Your task to perform on an android device: turn off notifications in google photos Image 0: 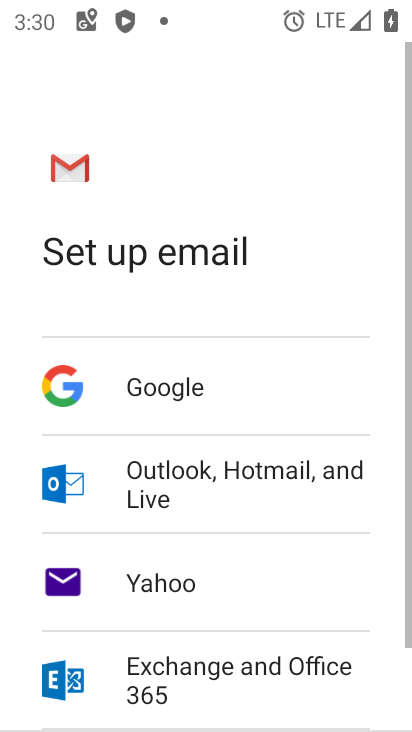
Step 0: press back button
Your task to perform on an android device: turn off notifications in google photos Image 1: 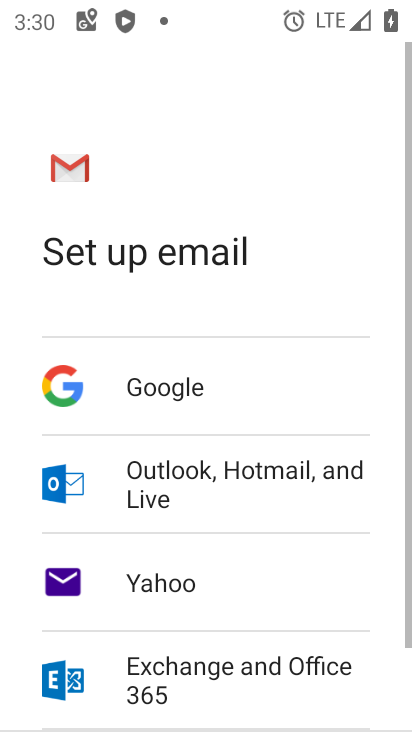
Step 1: press back button
Your task to perform on an android device: turn off notifications in google photos Image 2: 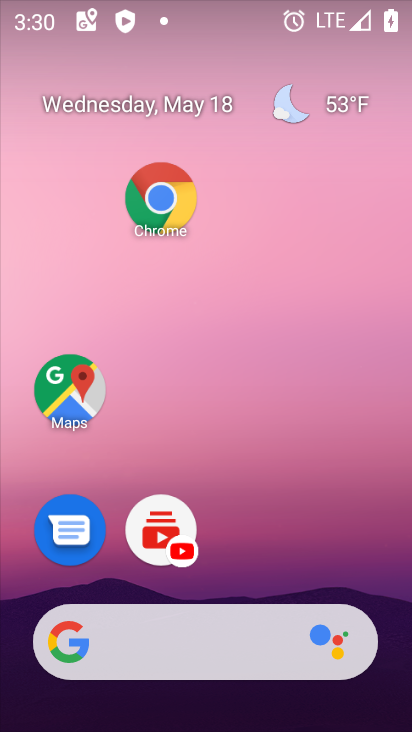
Step 2: drag from (118, 282) to (65, 31)
Your task to perform on an android device: turn off notifications in google photos Image 3: 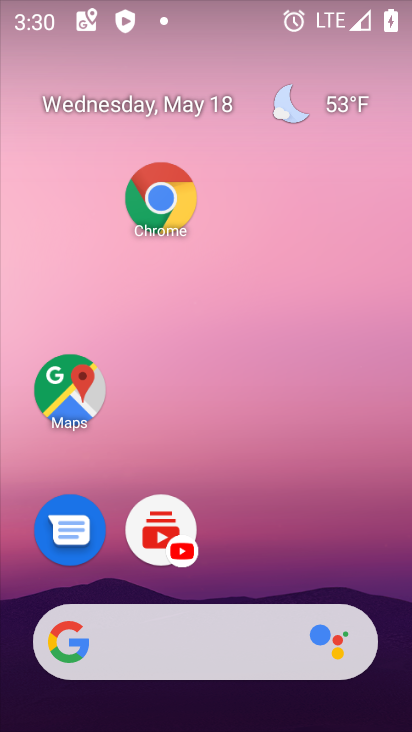
Step 3: drag from (279, 563) to (178, 2)
Your task to perform on an android device: turn off notifications in google photos Image 4: 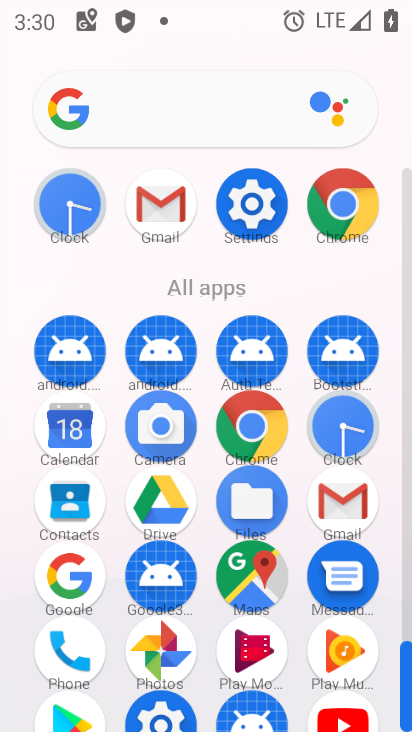
Step 4: click (171, 653)
Your task to perform on an android device: turn off notifications in google photos Image 5: 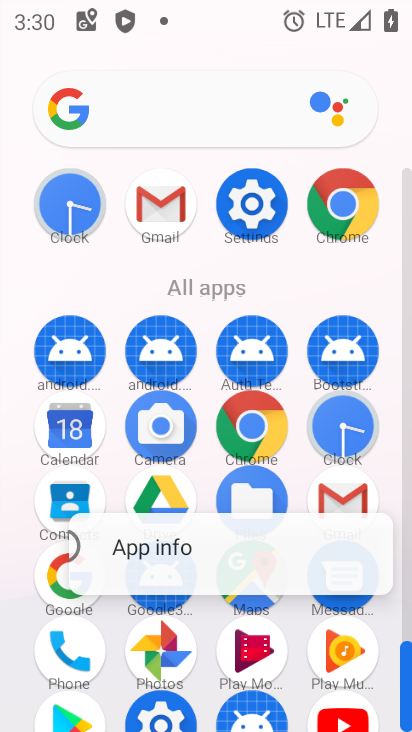
Step 5: click (171, 653)
Your task to perform on an android device: turn off notifications in google photos Image 6: 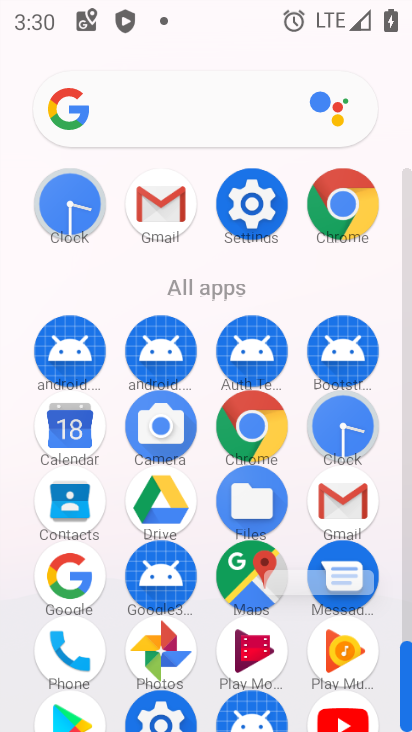
Step 6: click (170, 642)
Your task to perform on an android device: turn off notifications in google photos Image 7: 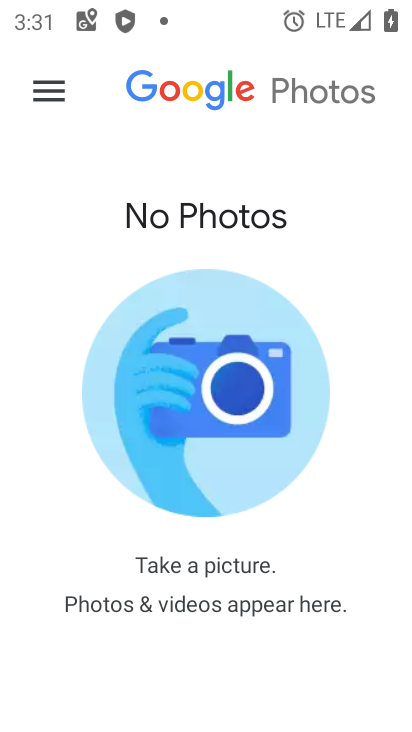
Step 7: press back button
Your task to perform on an android device: turn off notifications in google photos Image 8: 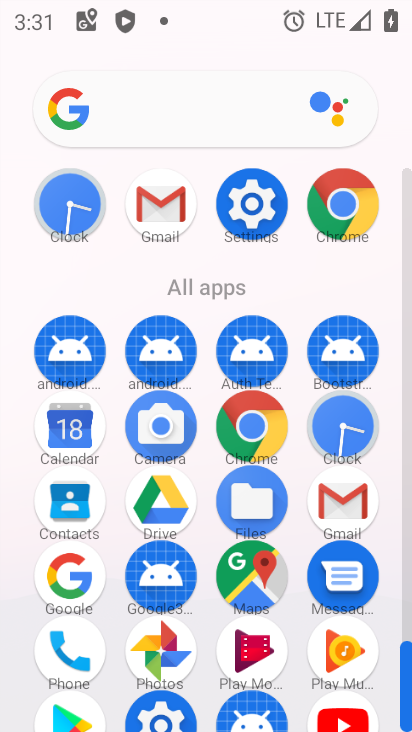
Step 8: click (165, 656)
Your task to perform on an android device: turn off notifications in google photos Image 9: 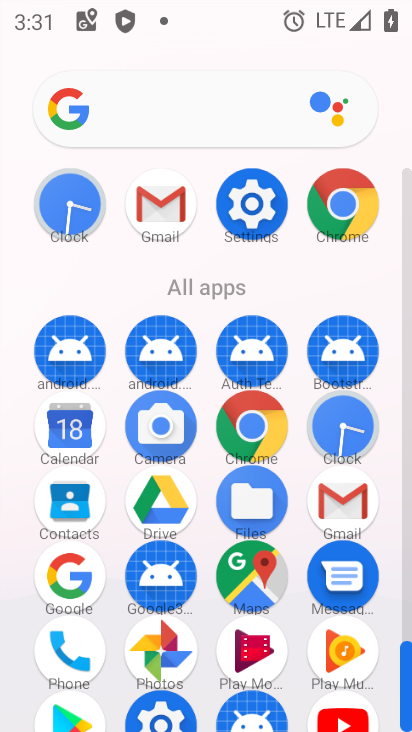
Step 9: click (167, 654)
Your task to perform on an android device: turn off notifications in google photos Image 10: 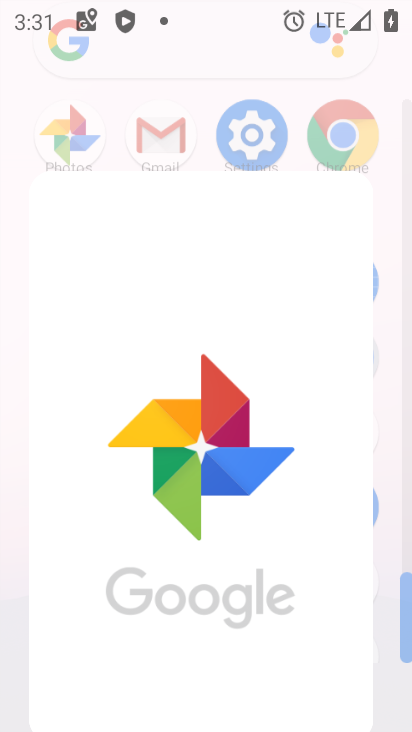
Step 10: click (168, 654)
Your task to perform on an android device: turn off notifications in google photos Image 11: 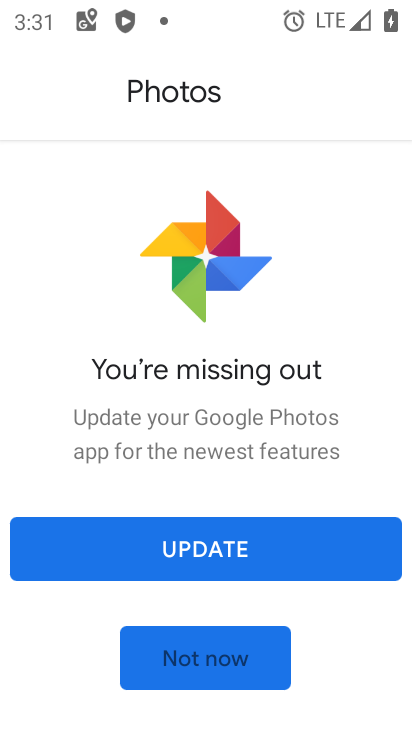
Step 11: click (197, 671)
Your task to perform on an android device: turn off notifications in google photos Image 12: 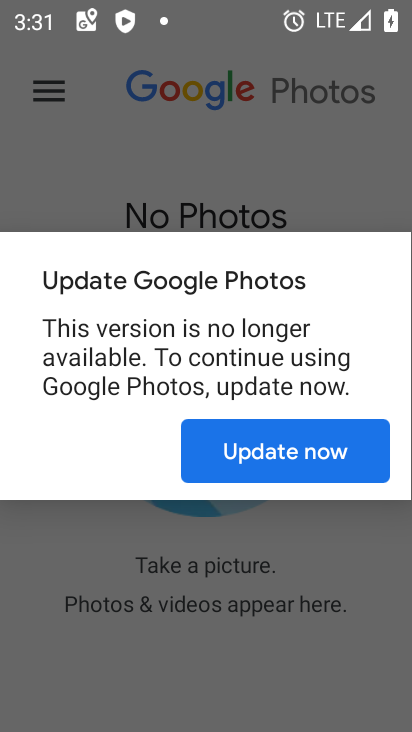
Step 12: click (314, 454)
Your task to perform on an android device: turn off notifications in google photos Image 13: 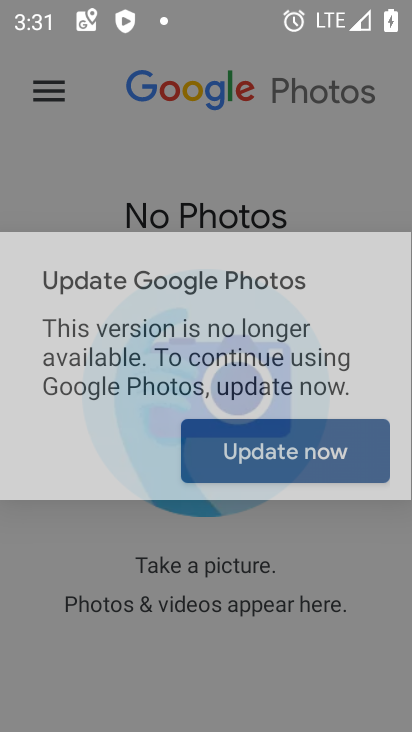
Step 13: click (314, 454)
Your task to perform on an android device: turn off notifications in google photos Image 14: 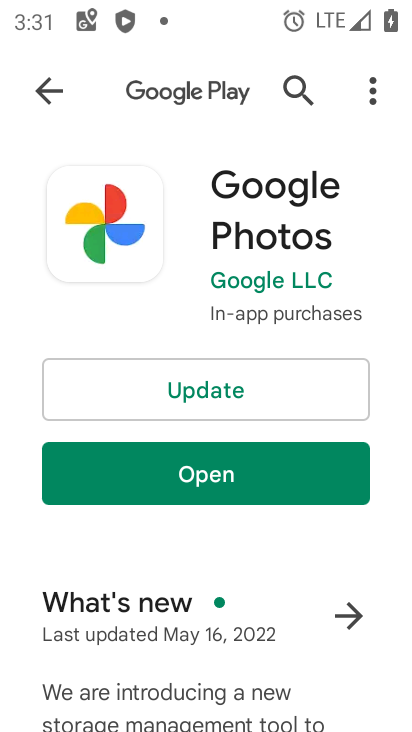
Step 14: click (215, 379)
Your task to perform on an android device: turn off notifications in google photos Image 15: 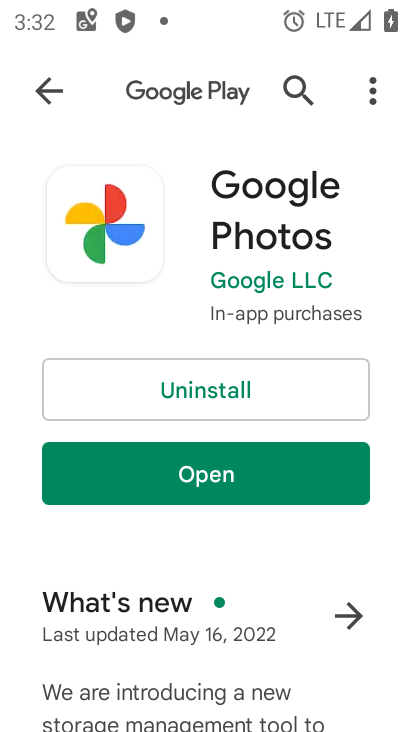
Step 15: click (201, 469)
Your task to perform on an android device: turn off notifications in google photos Image 16: 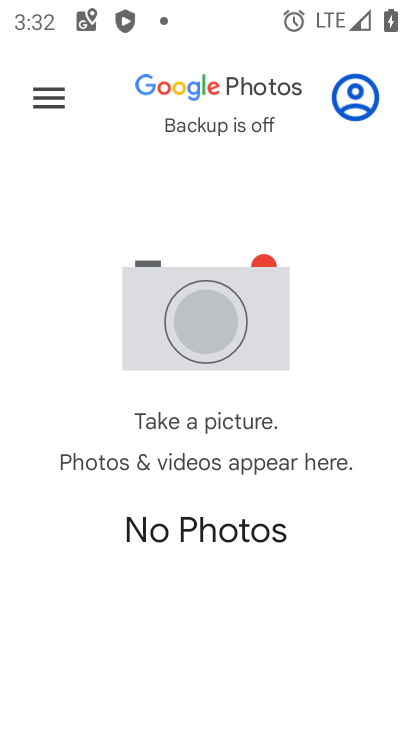
Step 16: click (41, 91)
Your task to perform on an android device: turn off notifications in google photos Image 17: 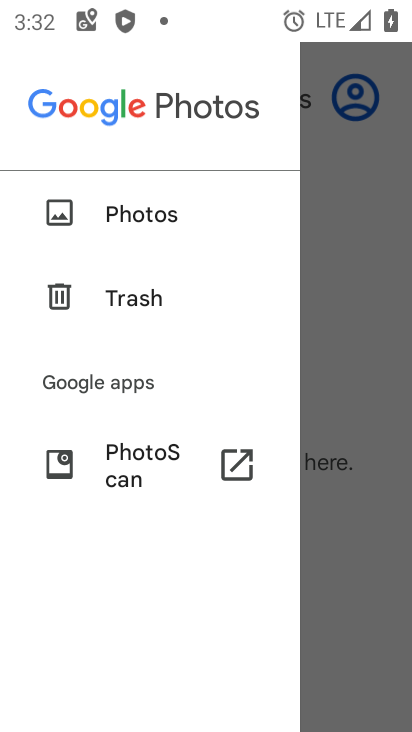
Step 17: click (296, 278)
Your task to perform on an android device: turn off notifications in google photos Image 18: 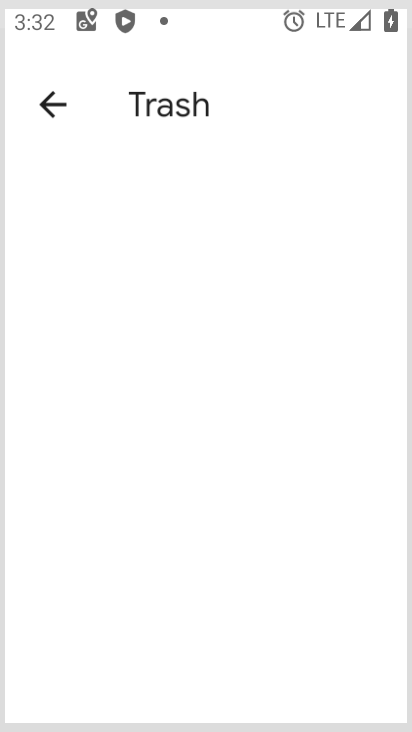
Step 18: click (343, 264)
Your task to perform on an android device: turn off notifications in google photos Image 19: 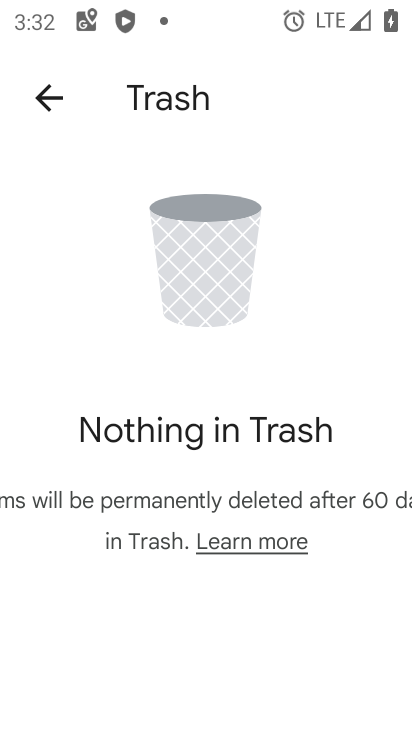
Step 19: click (37, 97)
Your task to perform on an android device: turn off notifications in google photos Image 20: 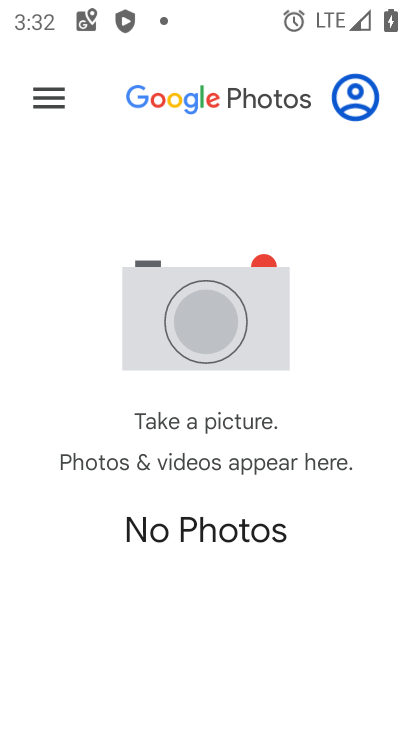
Step 20: click (54, 105)
Your task to perform on an android device: turn off notifications in google photos Image 21: 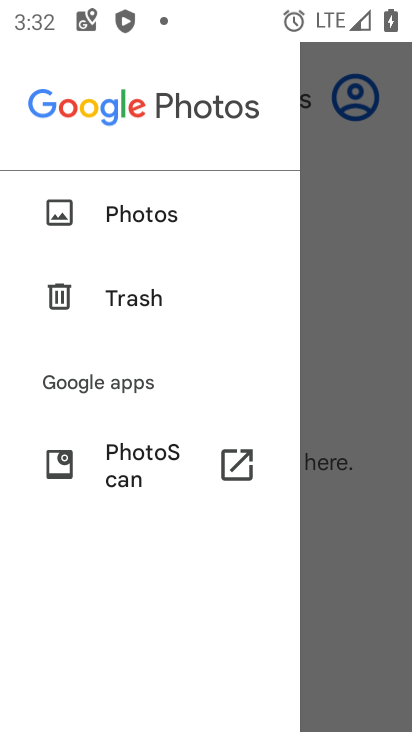
Step 21: drag from (151, 241) to (151, 579)
Your task to perform on an android device: turn off notifications in google photos Image 22: 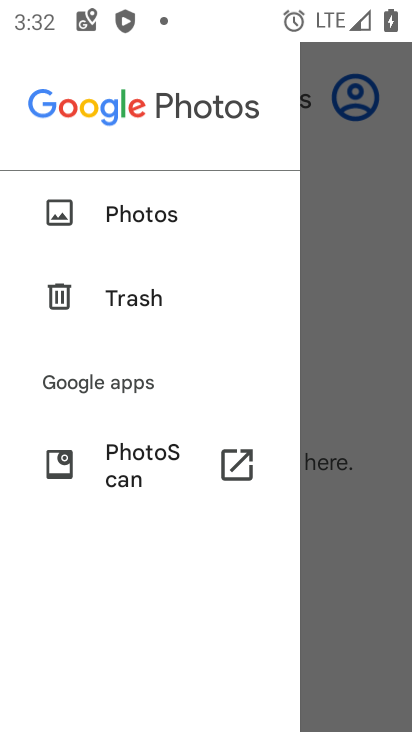
Step 22: click (324, 281)
Your task to perform on an android device: turn off notifications in google photos Image 23: 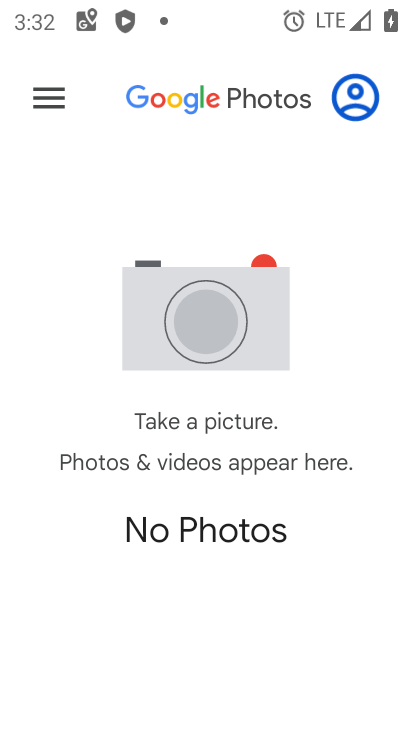
Step 23: task complete